Your task to perform on an android device: Go to Google Image 0: 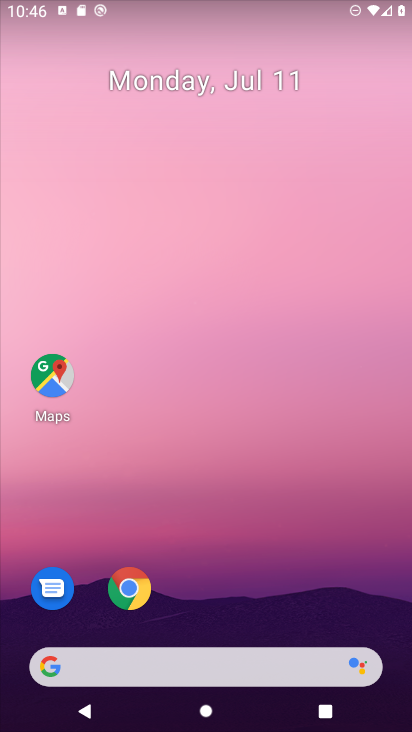
Step 0: drag from (395, 635) to (175, 13)
Your task to perform on an android device: Go to Google Image 1: 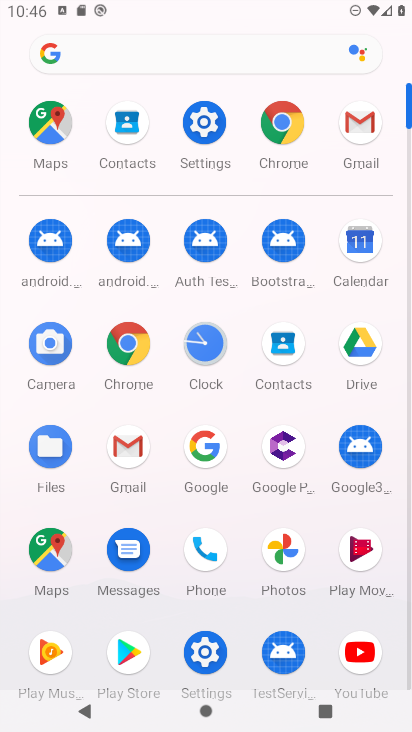
Step 1: click (200, 443)
Your task to perform on an android device: Go to Google Image 2: 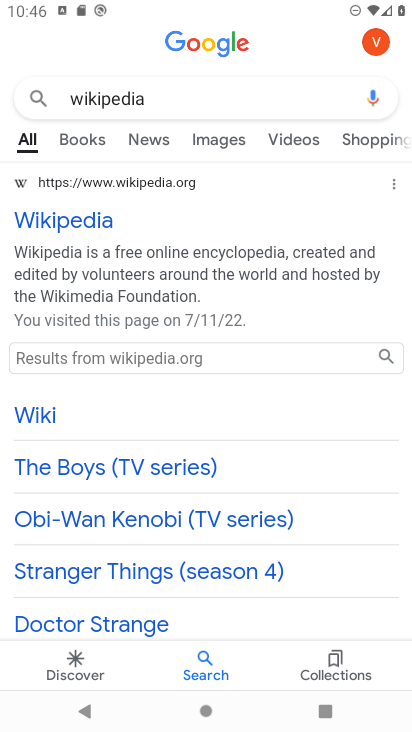
Step 2: task complete